Your task to perform on an android device: Go to Yahoo.com Image 0: 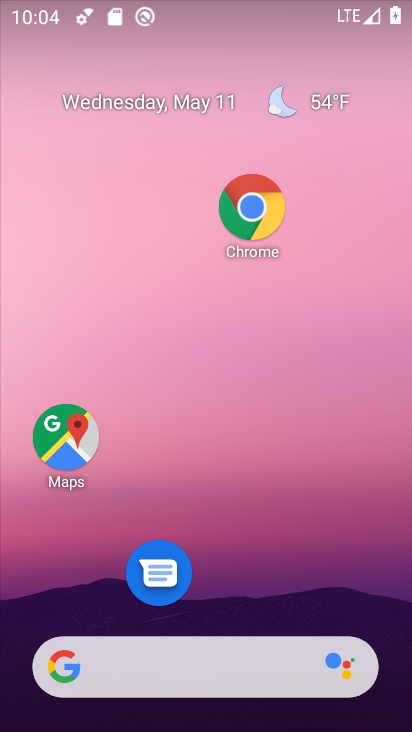
Step 0: drag from (196, 639) to (247, 73)
Your task to perform on an android device: Go to Yahoo.com Image 1: 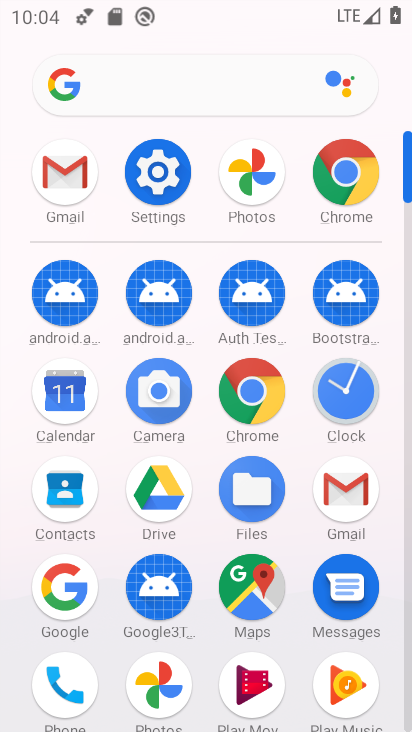
Step 1: click (237, 392)
Your task to perform on an android device: Go to Yahoo.com Image 2: 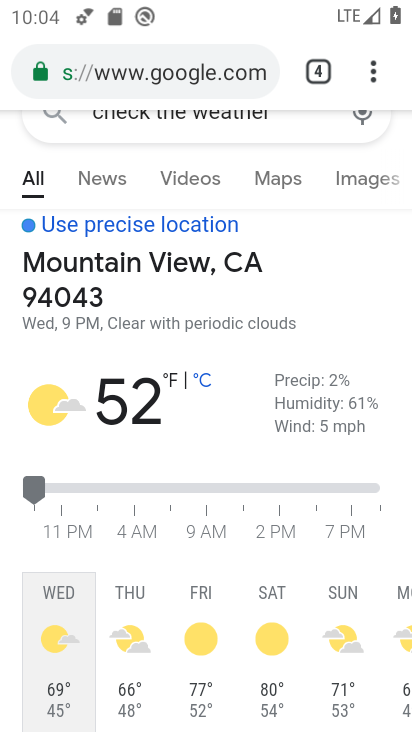
Step 2: drag from (365, 79) to (203, 164)
Your task to perform on an android device: Go to Yahoo.com Image 3: 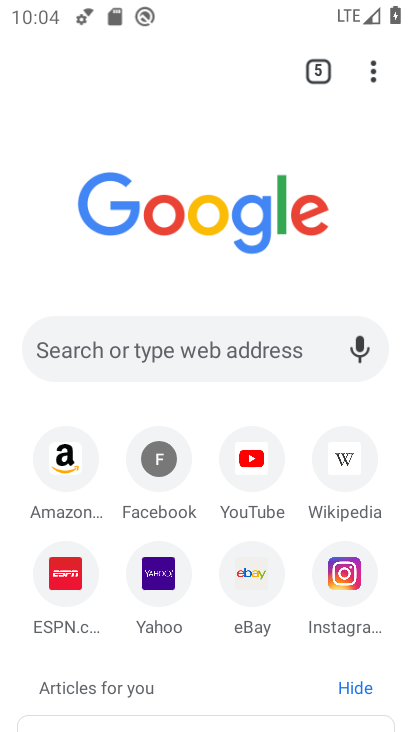
Step 3: click (150, 579)
Your task to perform on an android device: Go to Yahoo.com Image 4: 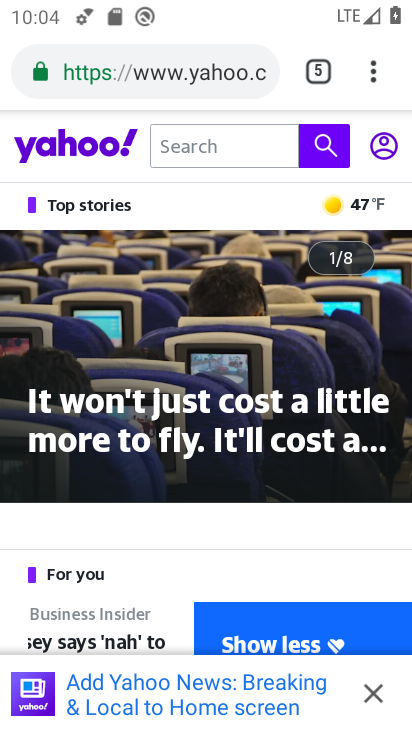
Step 4: task complete